Your task to perform on an android device: Search for 5 star sushi restaurants on Maps Image 0: 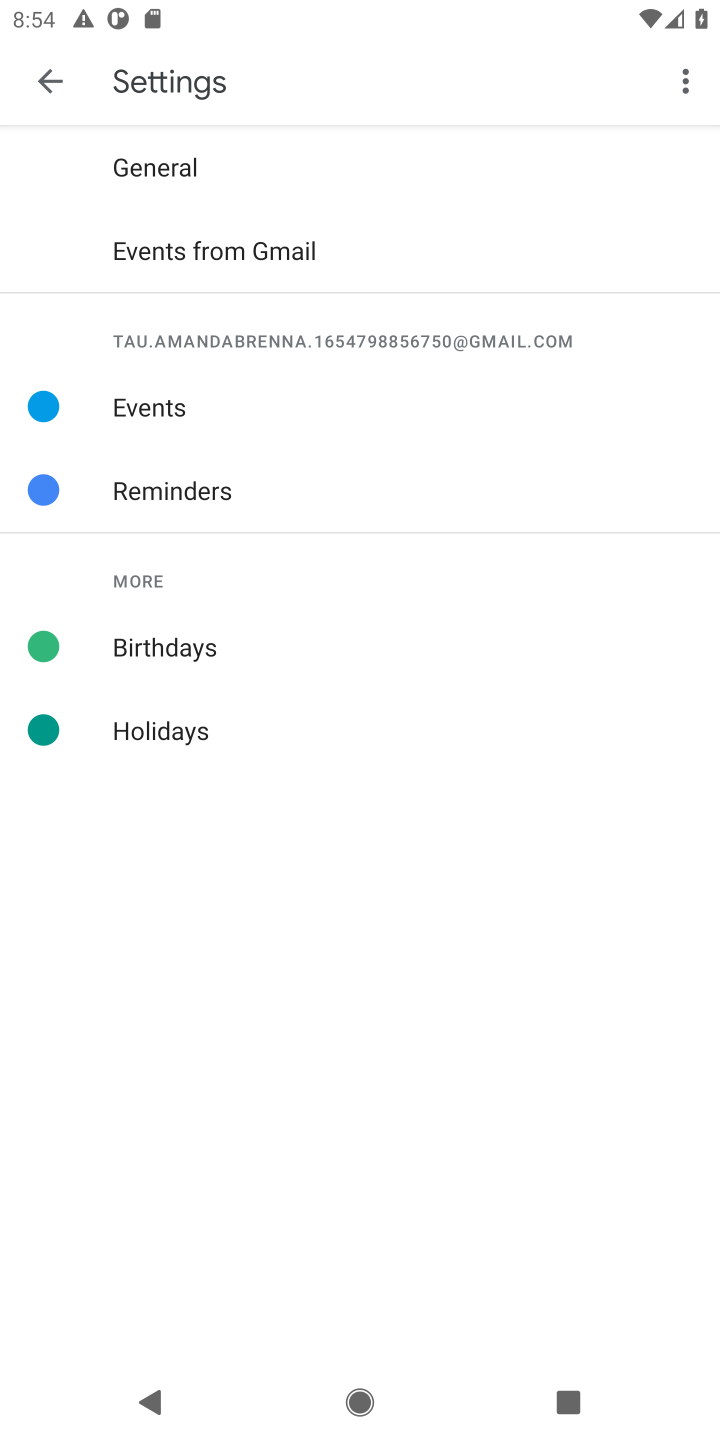
Step 0: press home button
Your task to perform on an android device: Search for 5 star sushi restaurants on Maps Image 1: 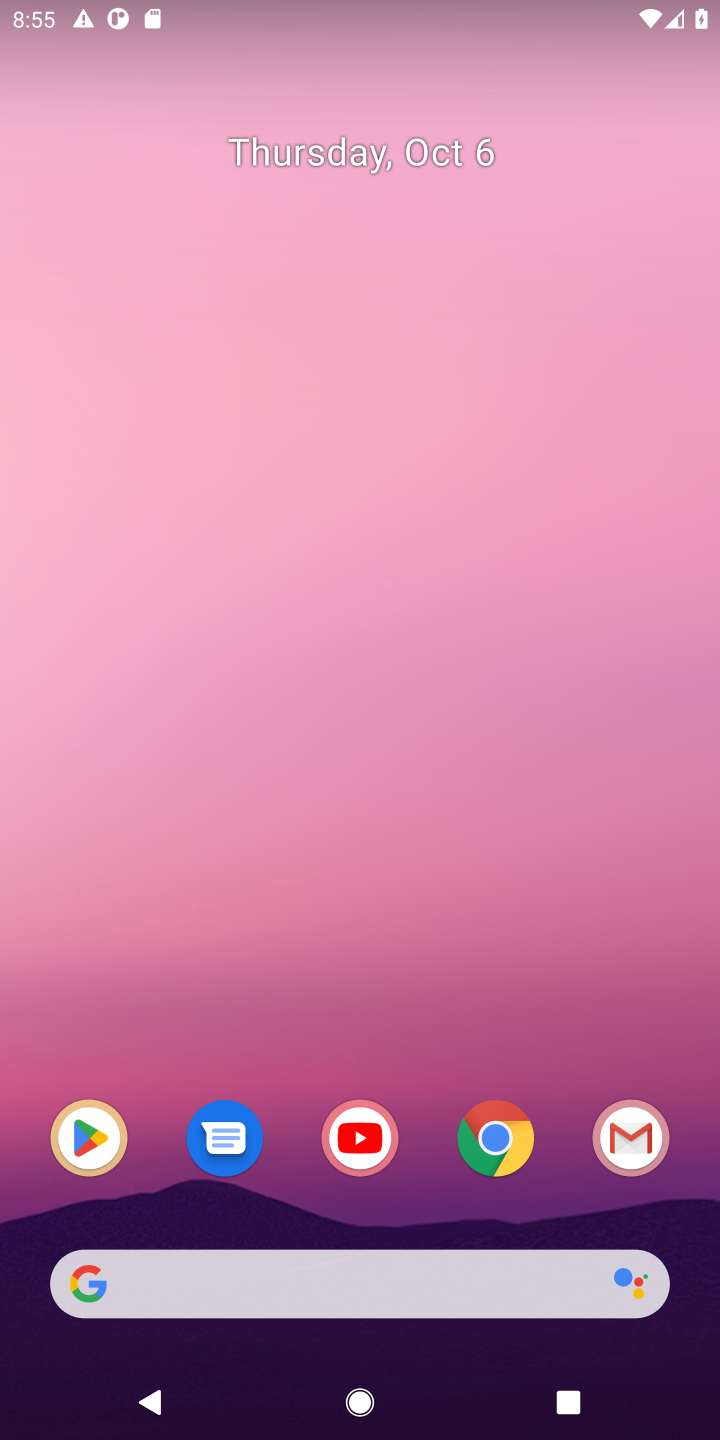
Step 1: drag from (430, 1204) to (332, 324)
Your task to perform on an android device: Search for 5 star sushi restaurants on Maps Image 2: 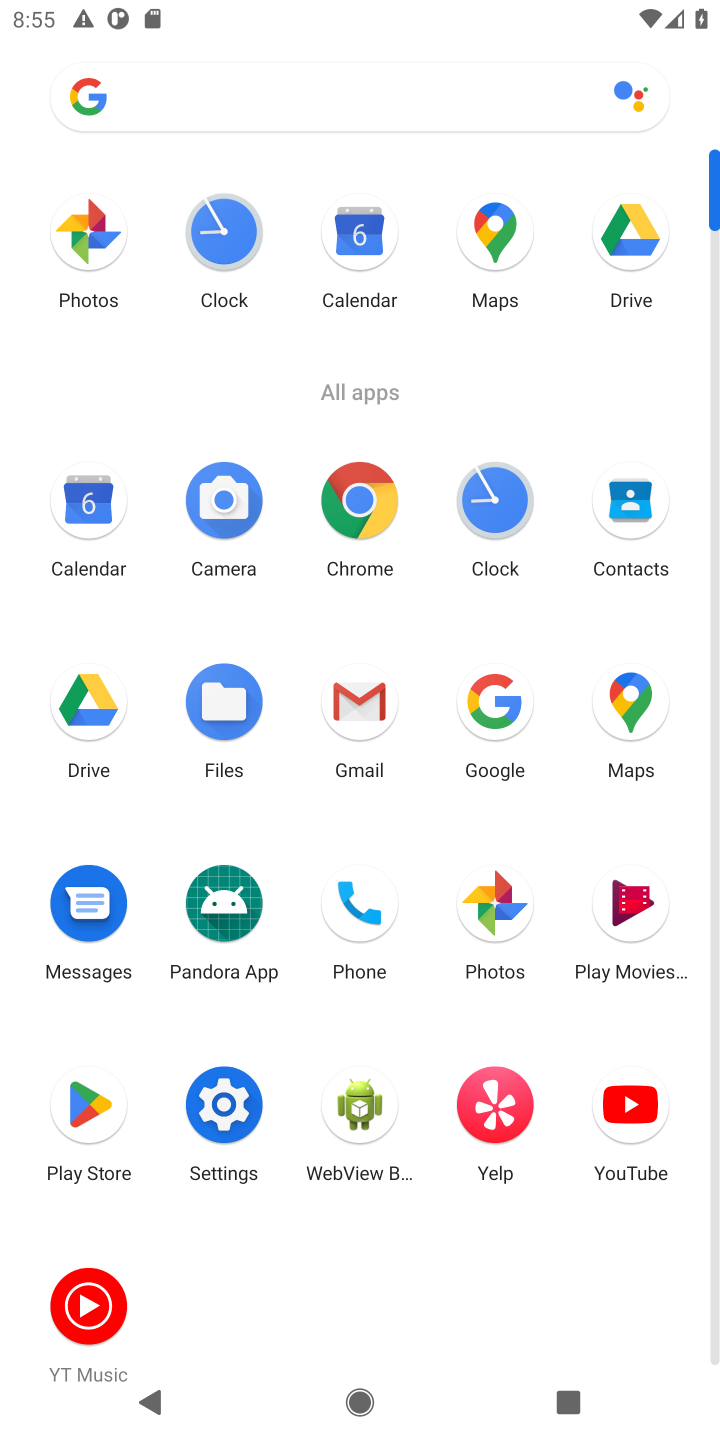
Step 2: click (633, 701)
Your task to perform on an android device: Search for 5 star sushi restaurants on Maps Image 3: 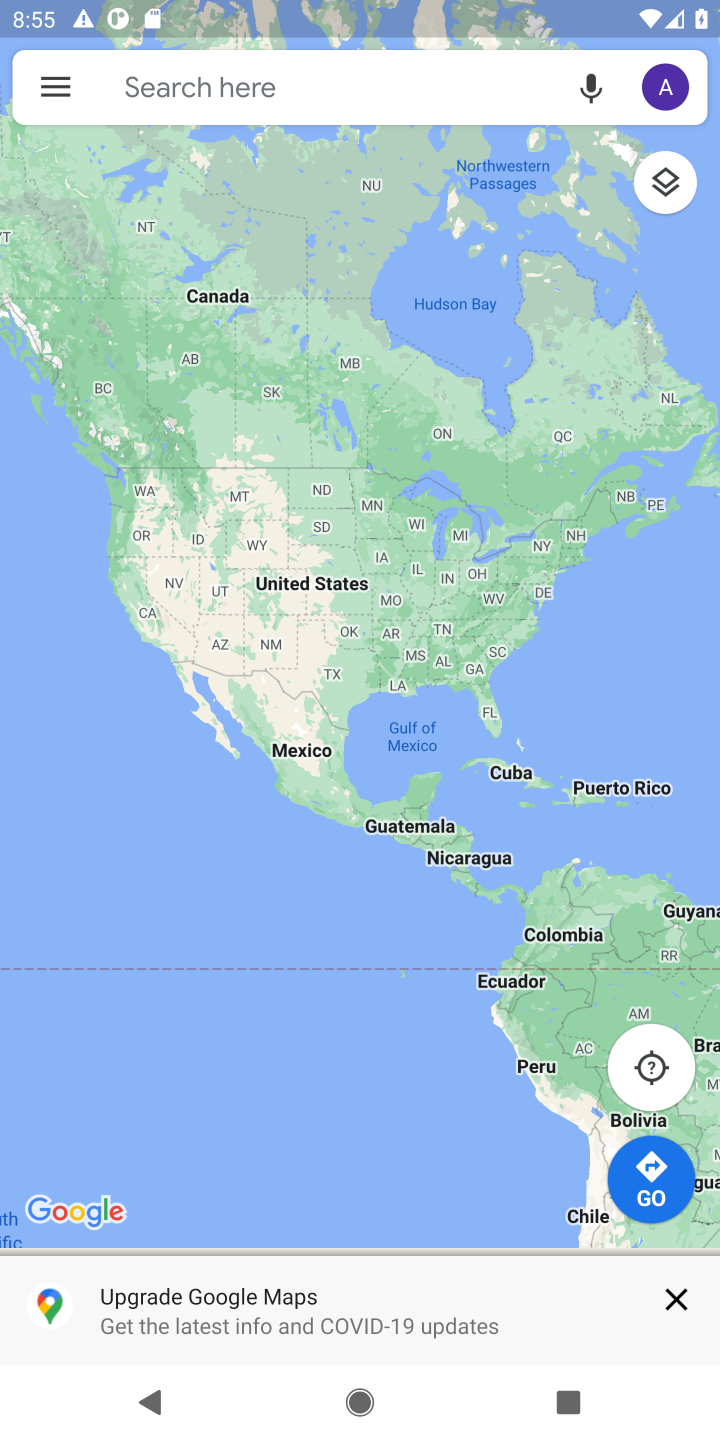
Step 3: click (230, 88)
Your task to perform on an android device: Search for 5 star sushi restaurants on Maps Image 4: 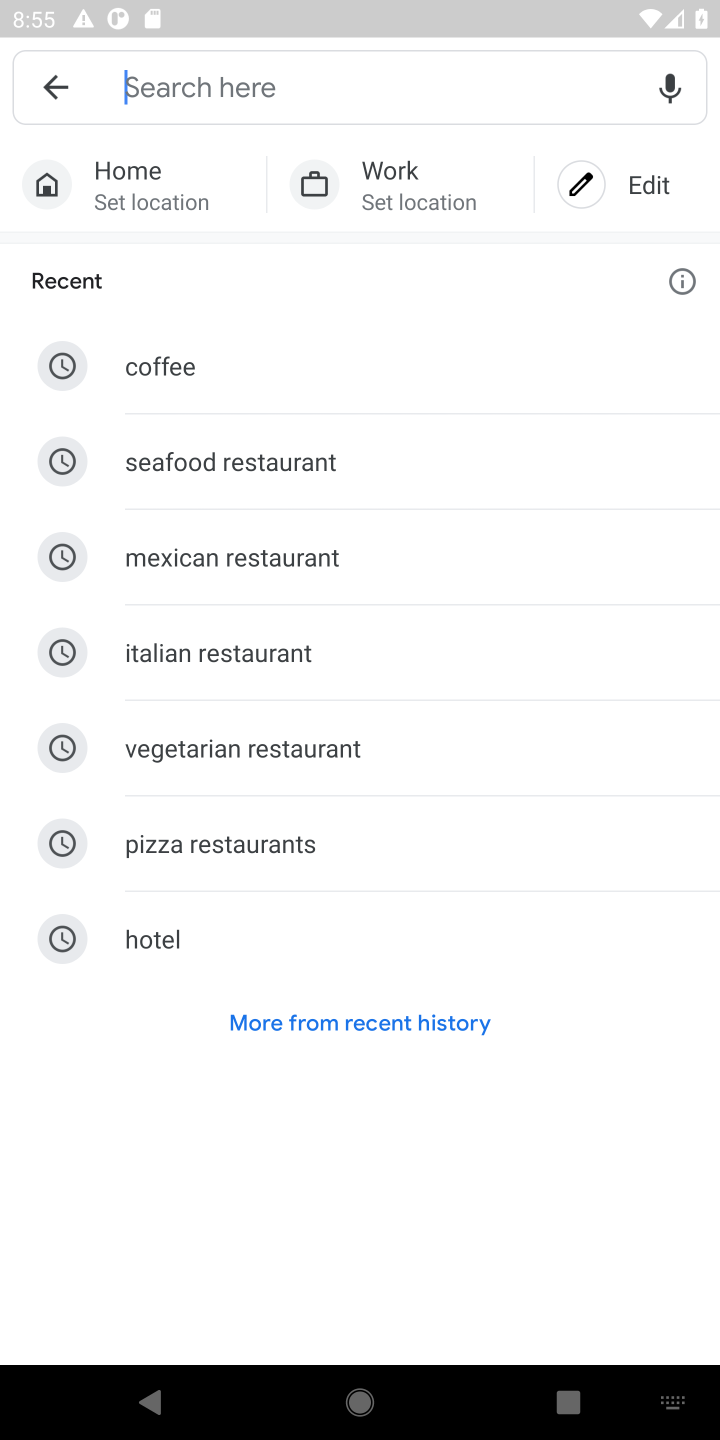
Step 4: type " 5 star sushi restaurants"
Your task to perform on an android device: Search for 5 star sushi restaurants on Maps Image 5: 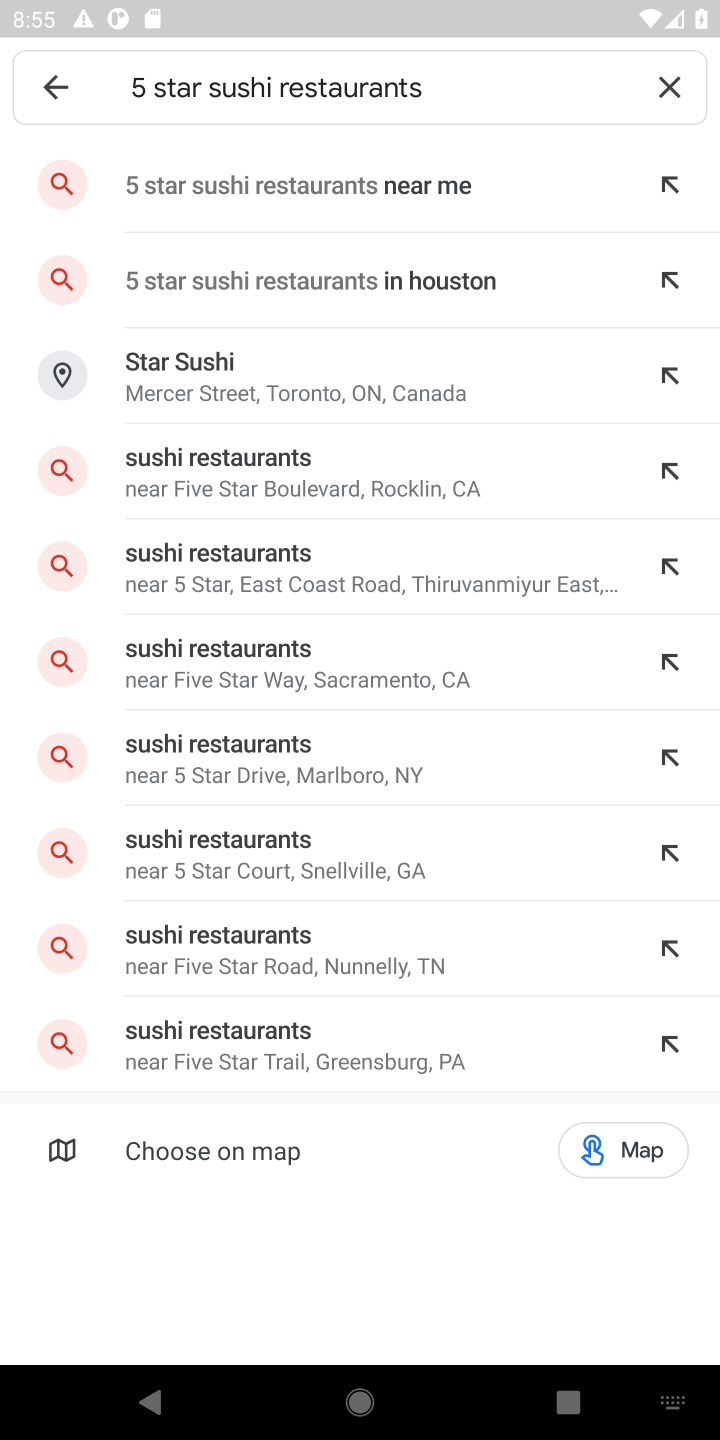
Step 5: click (277, 183)
Your task to perform on an android device: Search for 5 star sushi restaurants on Maps Image 6: 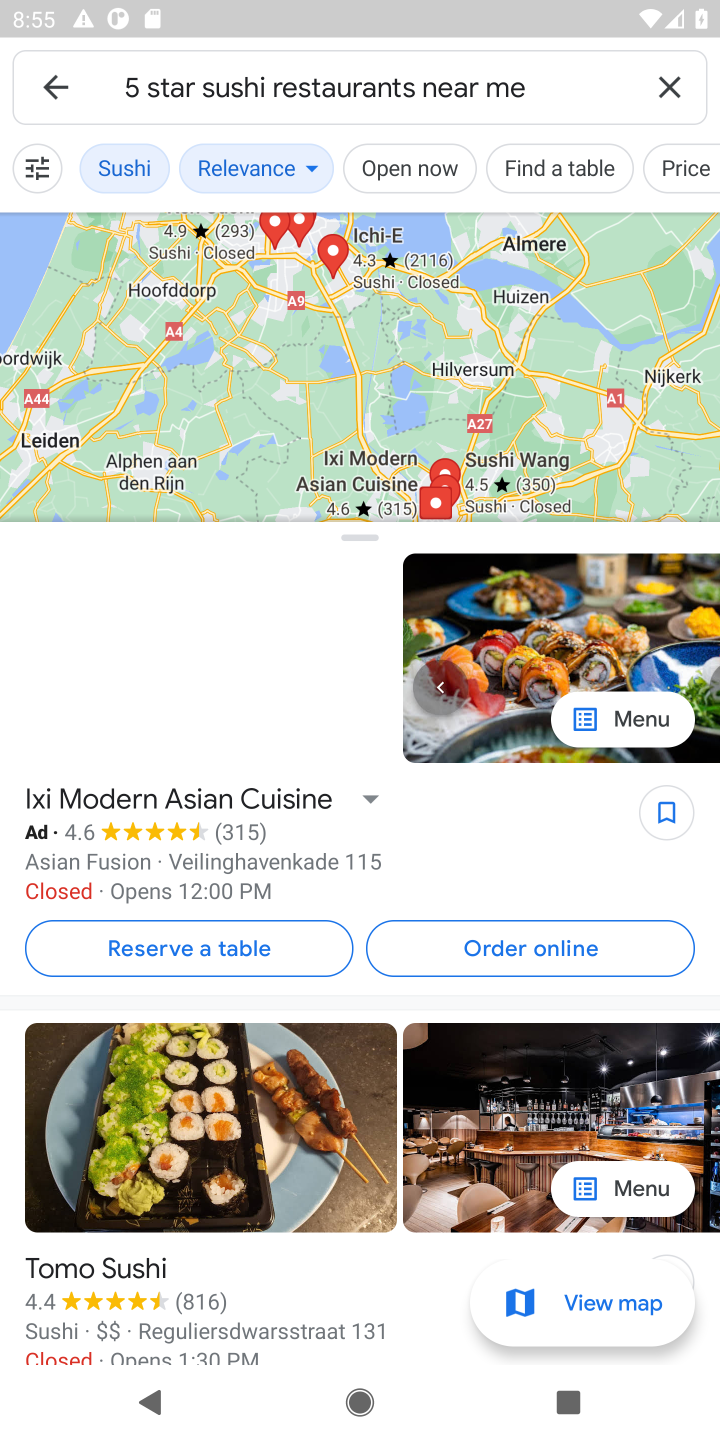
Step 6: task complete